Your task to perform on an android device: Show me popular games on the Play Store Image 0: 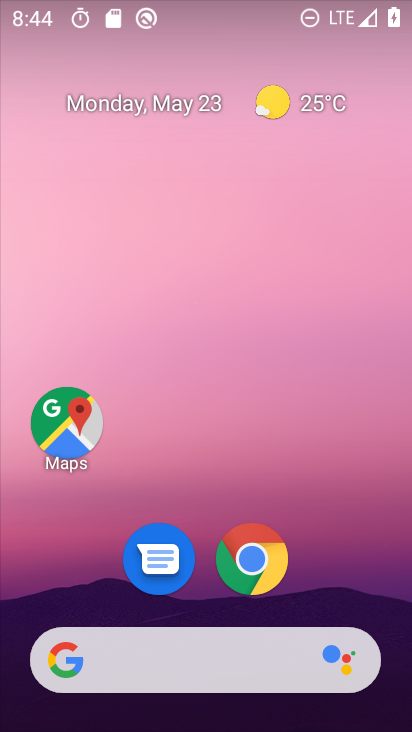
Step 0: drag from (390, 653) to (255, 7)
Your task to perform on an android device: Show me popular games on the Play Store Image 1: 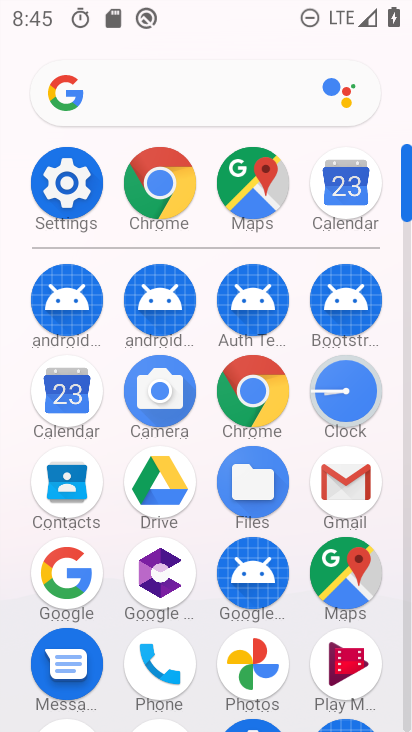
Step 1: drag from (201, 696) to (160, 200)
Your task to perform on an android device: Show me popular games on the Play Store Image 2: 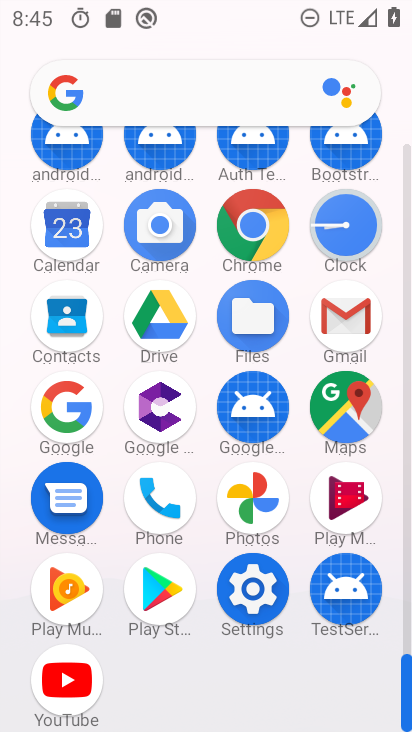
Step 2: click (162, 587)
Your task to perform on an android device: Show me popular games on the Play Store Image 3: 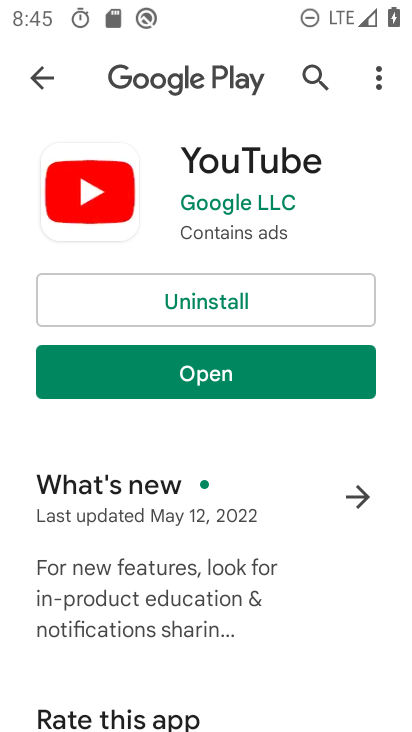
Step 3: press back button
Your task to perform on an android device: Show me popular games on the Play Store Image 4: 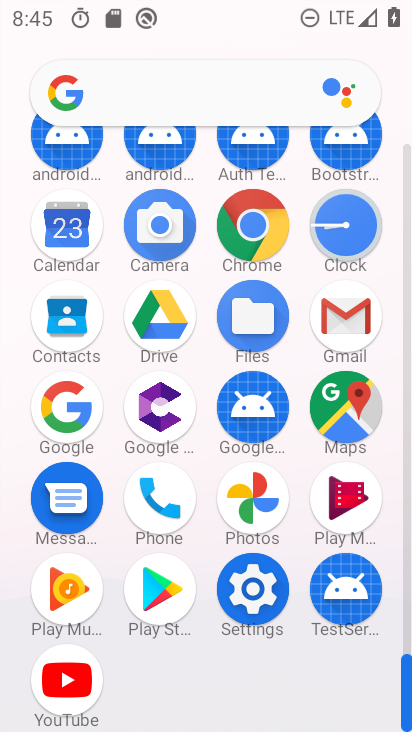
Step 4: click (148, 597)
Your task to perform on an android device: Show me popular games on the Play Store Image 5: 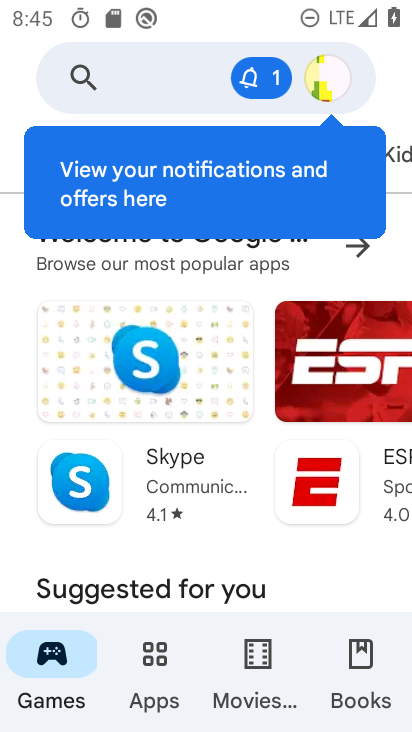
Step 5: task complete